Your task to perform on an android device: Search for a new mascara Image 0: 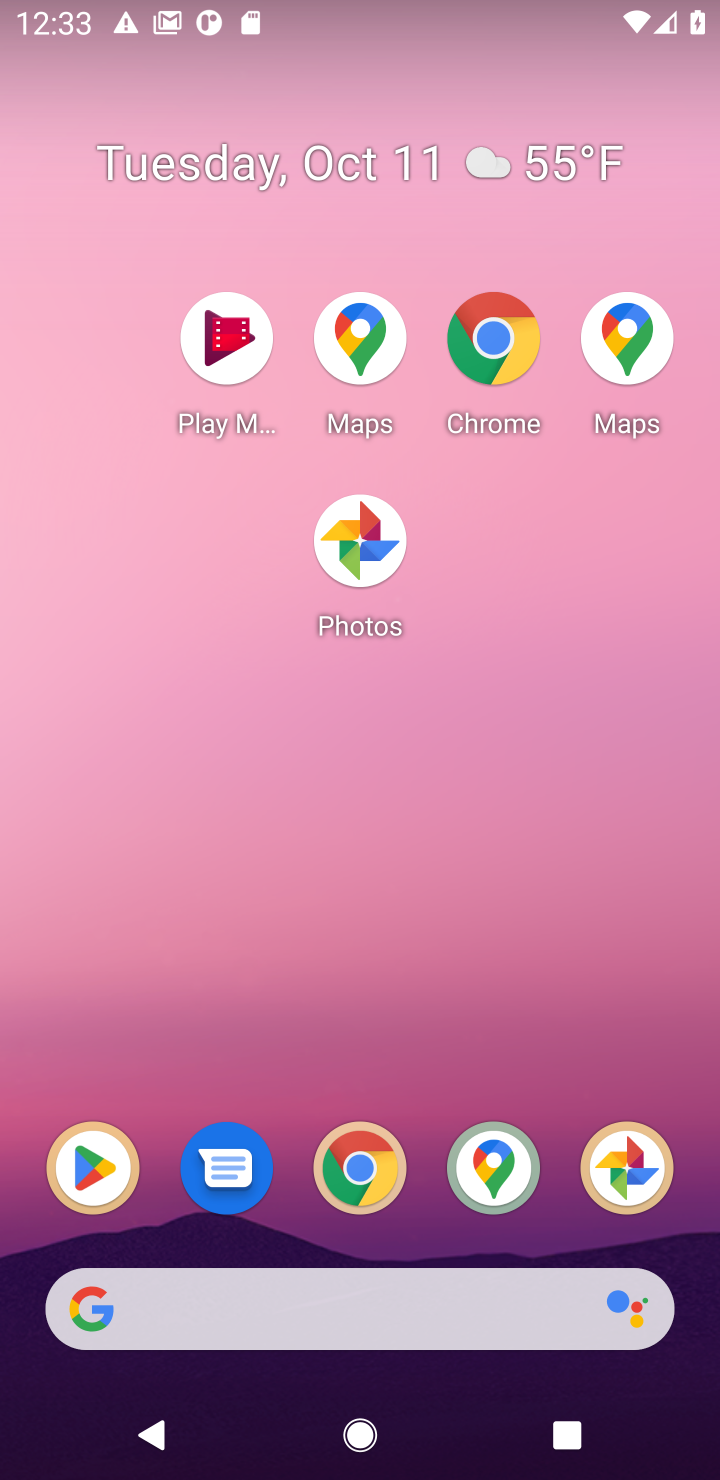
Step 0: drag from (502, 1108) to (466, 563)
Your task to perform on an android device: Search for a new mascara Image 1: 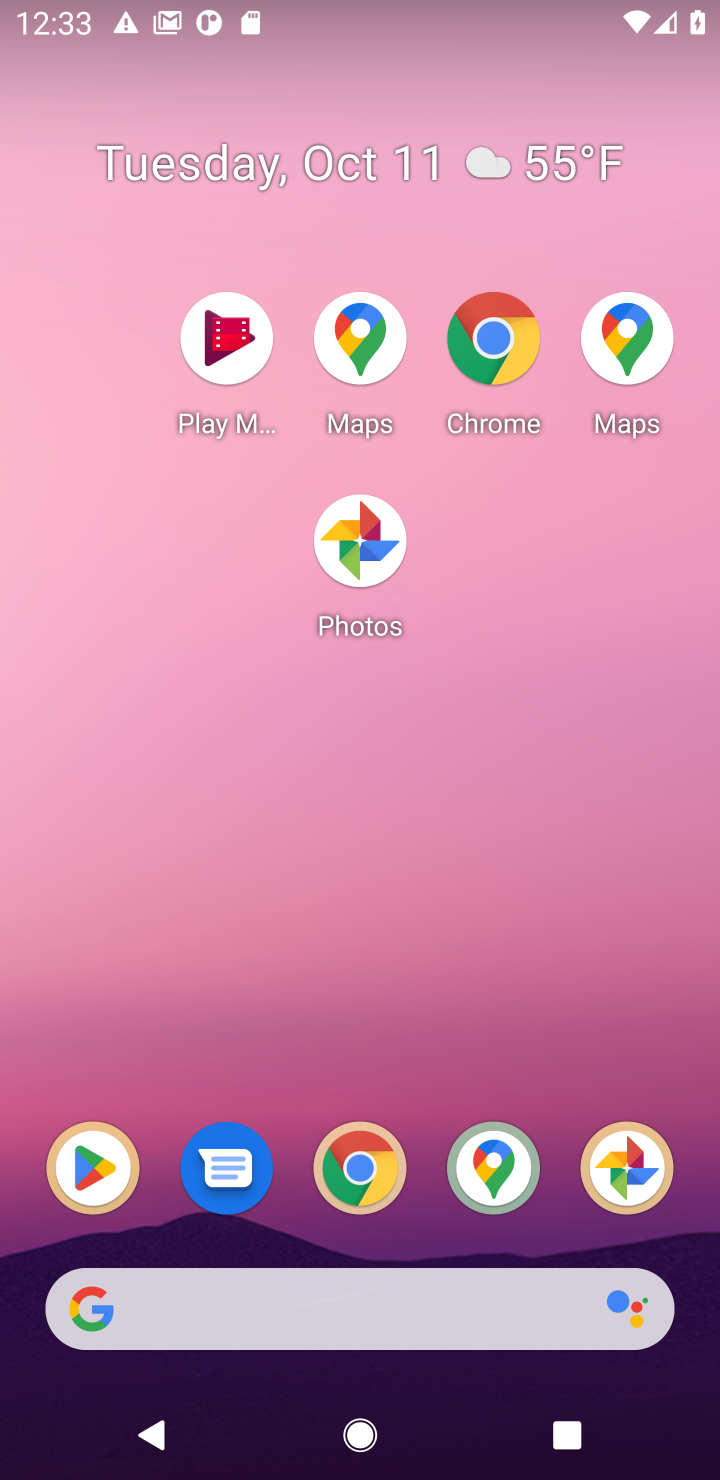
Step 1: drag from (415, 1119) to (438, 462)
Your task to perform on an android device: Search for a new mascara Image 2: 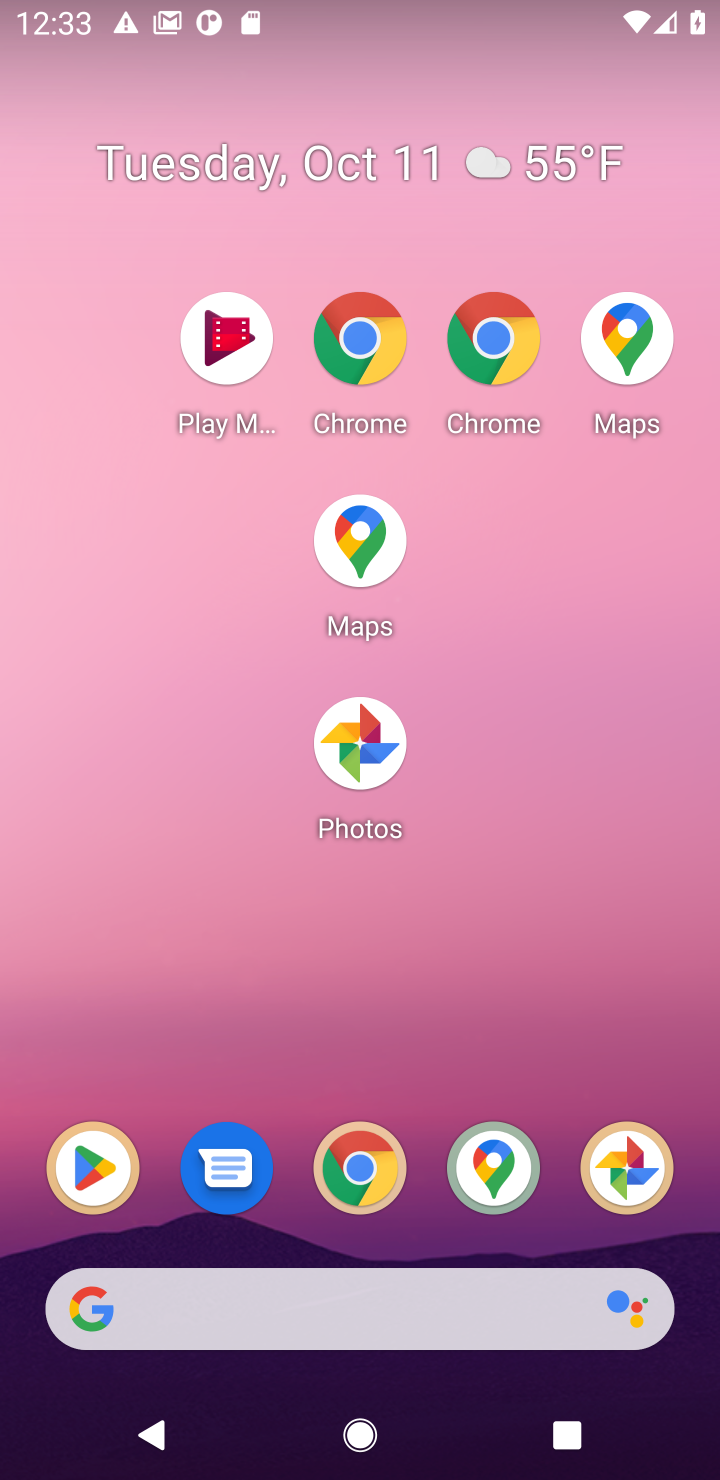
Step 2: drag from (436, 1040) to (418, 418)
Your task to perform on an android device: Search for a new mascara Image 3: 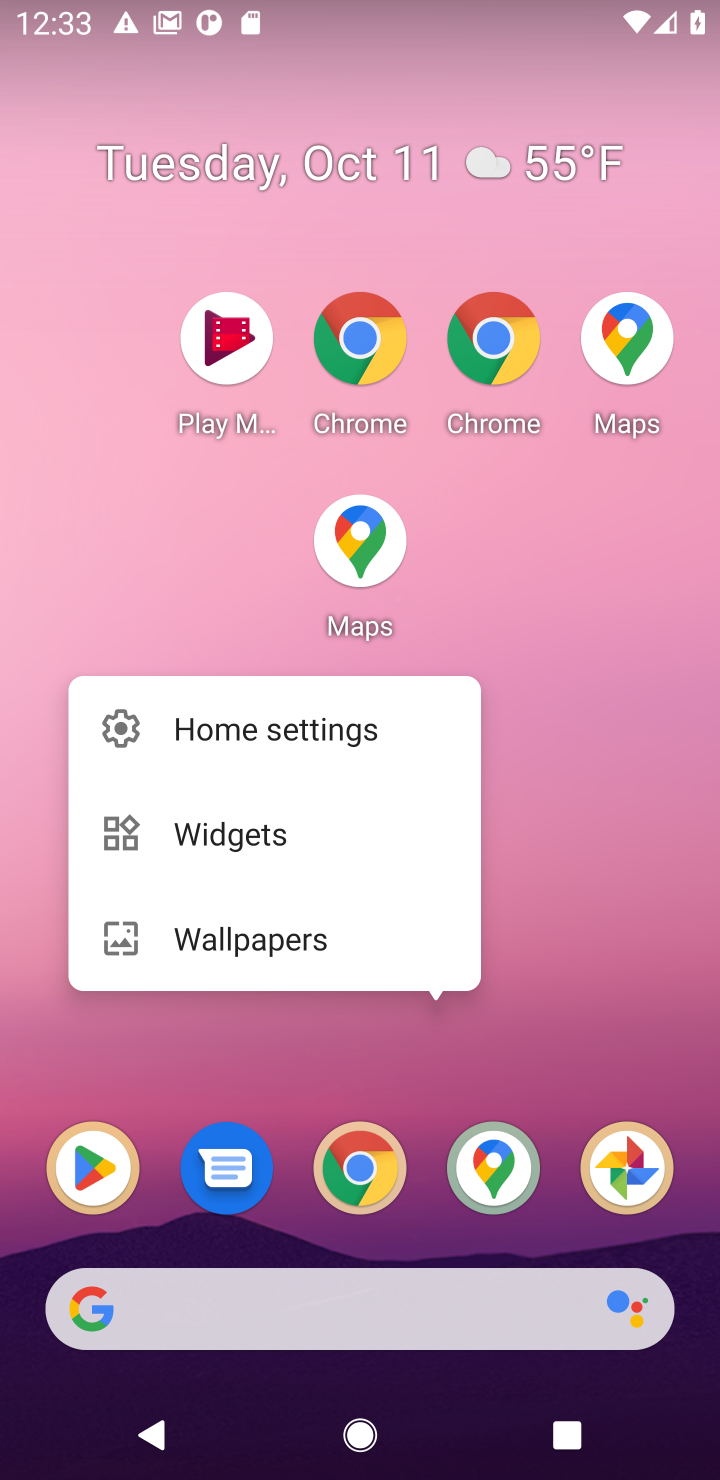
Step 3: click (517, 887)
Your task to perform on an android device: Search for a new mascara Image 4: 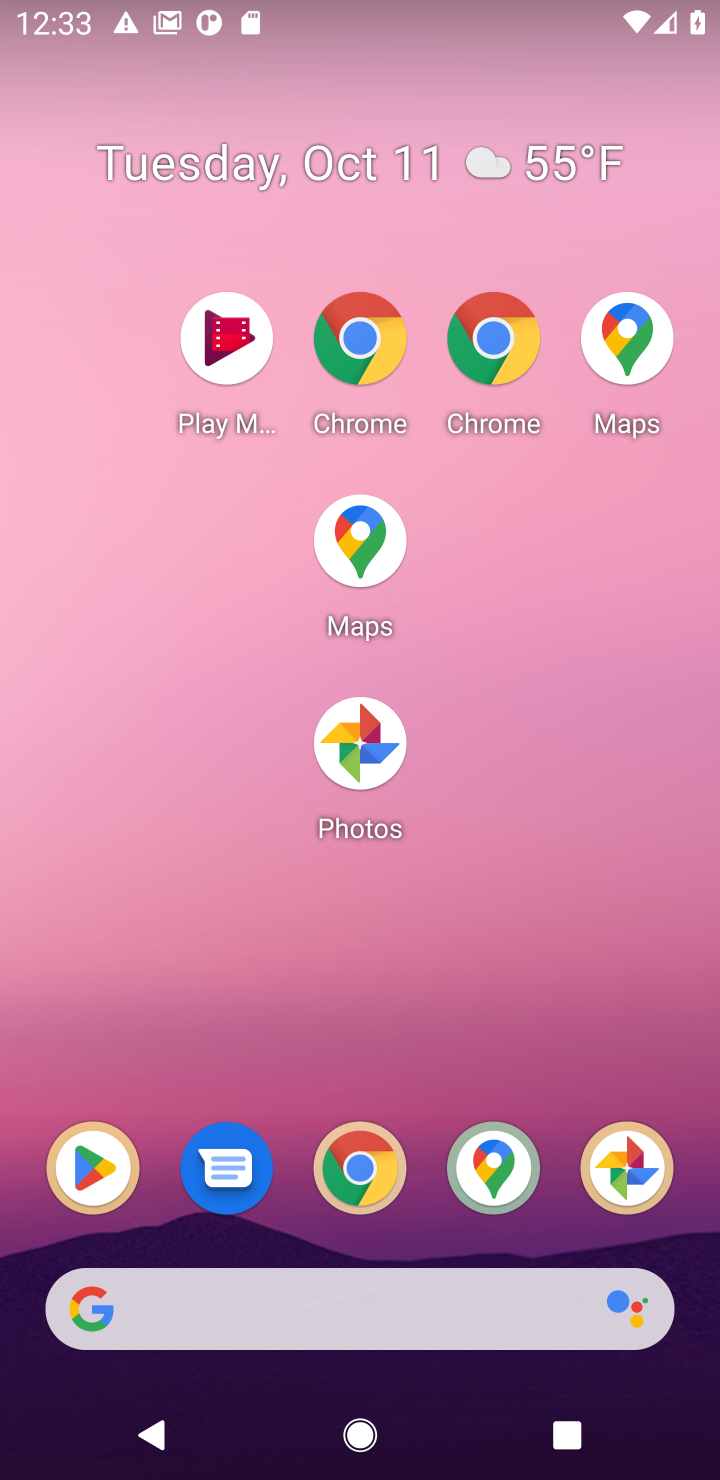
Step 4: drag from (447, 1106) to (235, 154)
Your task to perform on an android device: Search for a new mascara Image 5: 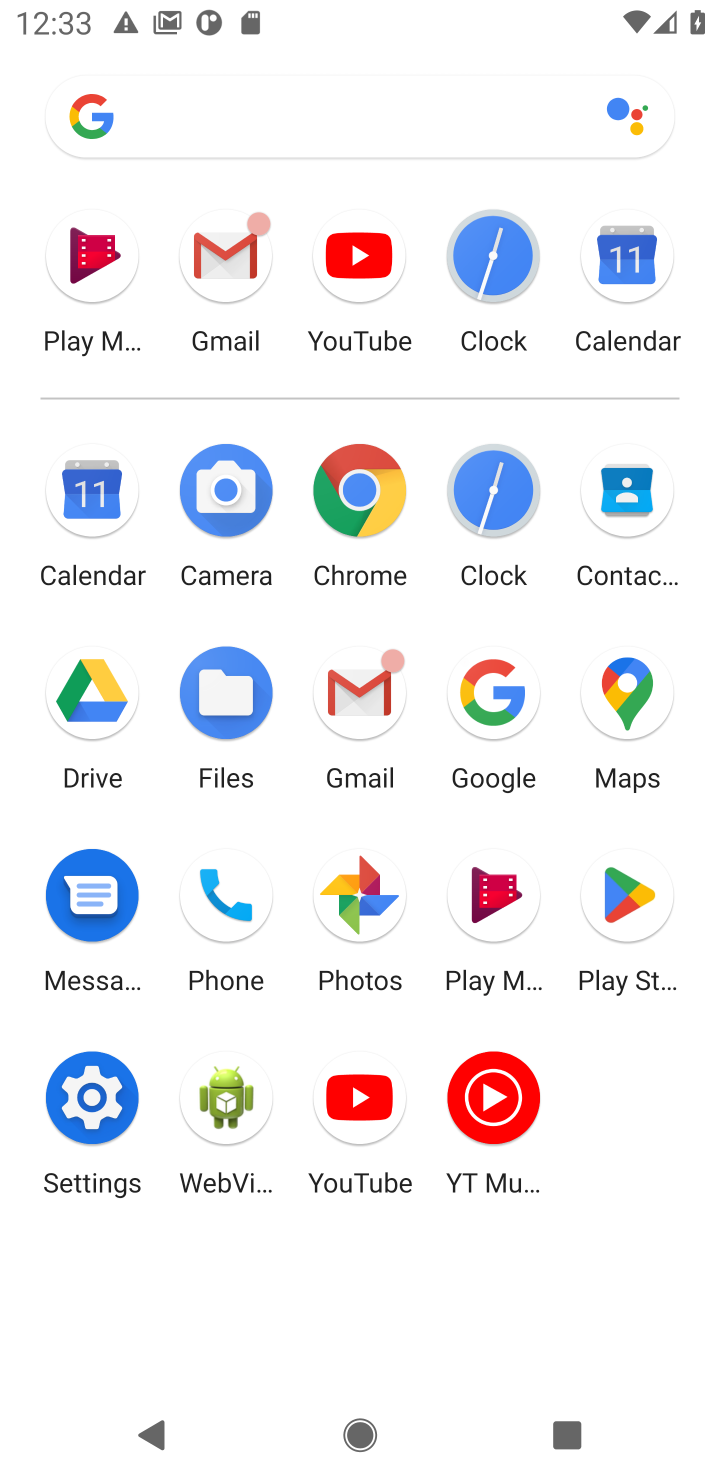
Step 5: click (491, 713)
Your task to perform on an android device: Search for a new mascara Image 6: 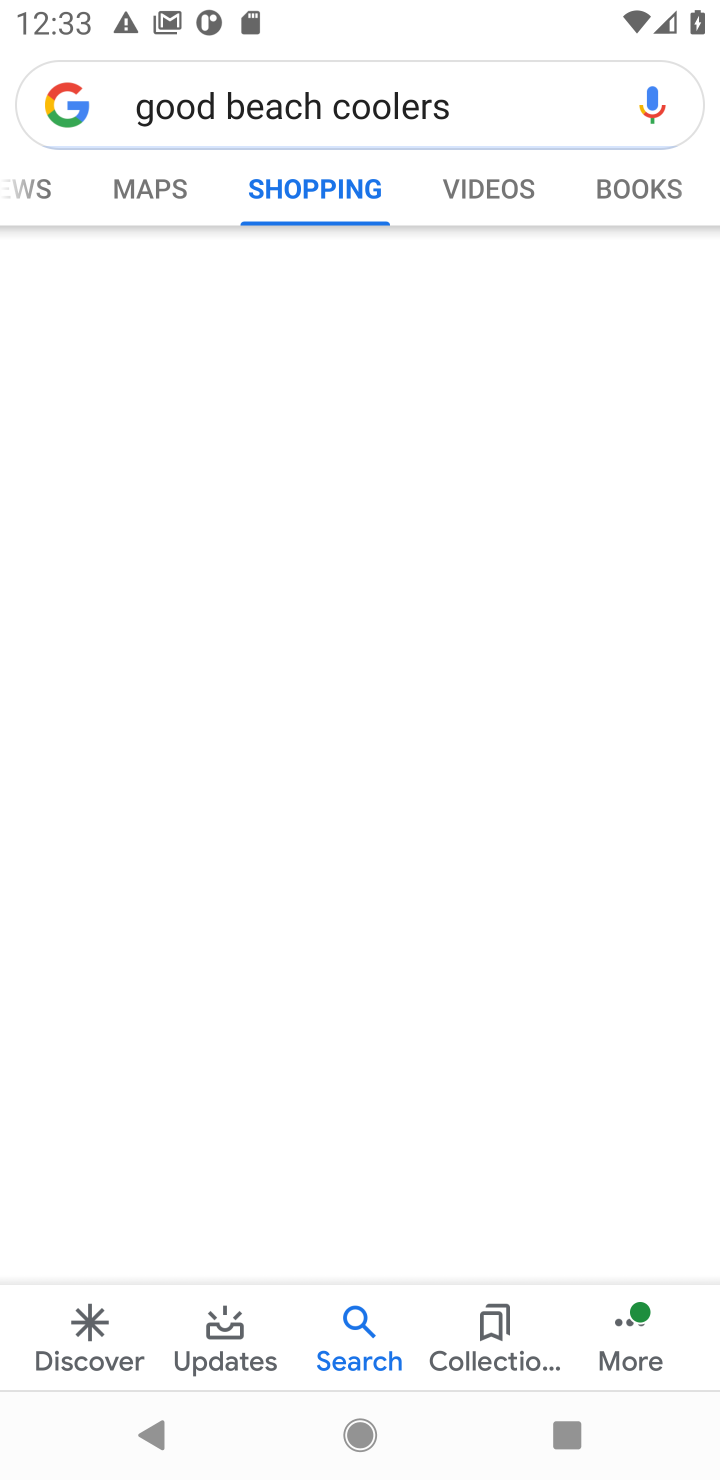
Step 6: click (457, 105)
Your task to perform on an android device: Search for a new mascara Image 7: 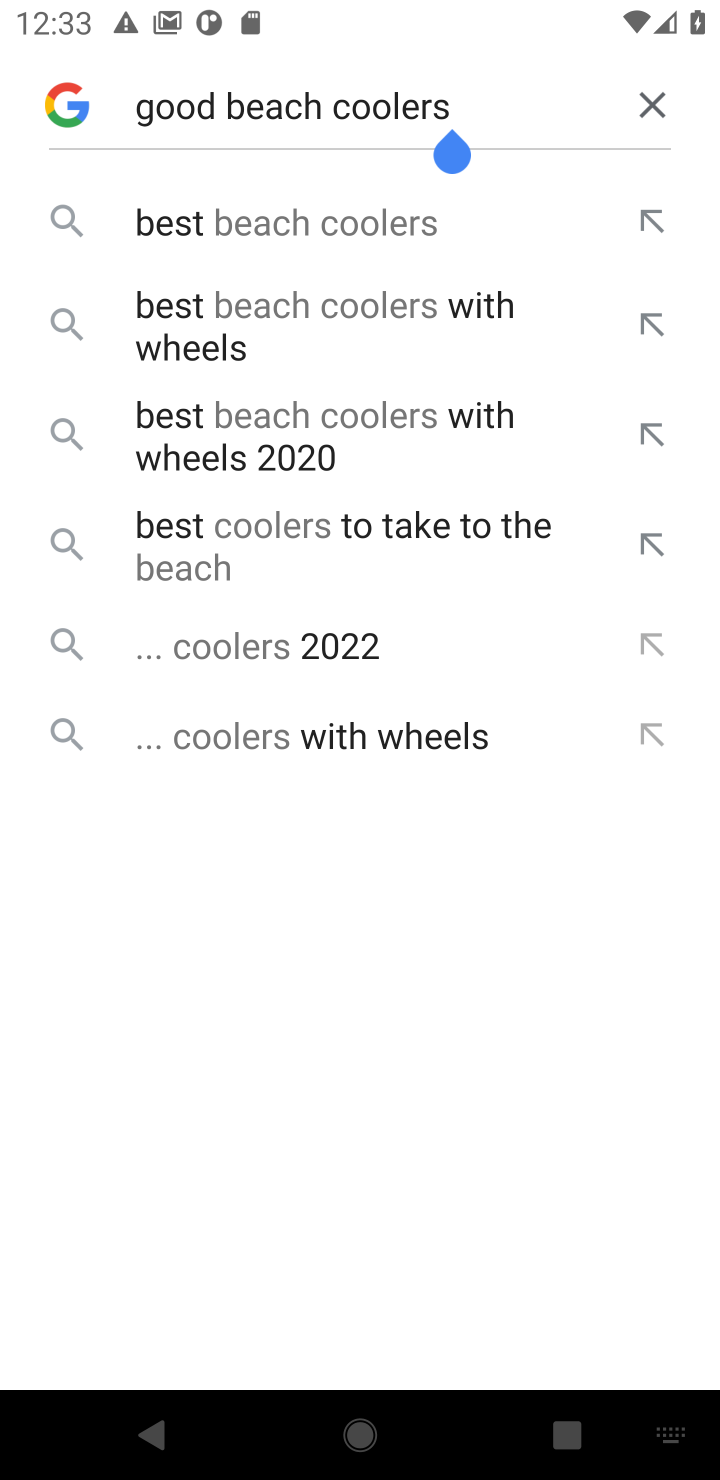
Step 7: click (646, 105)
Your task to perform on an android device: Search for a new mascara Image 8: 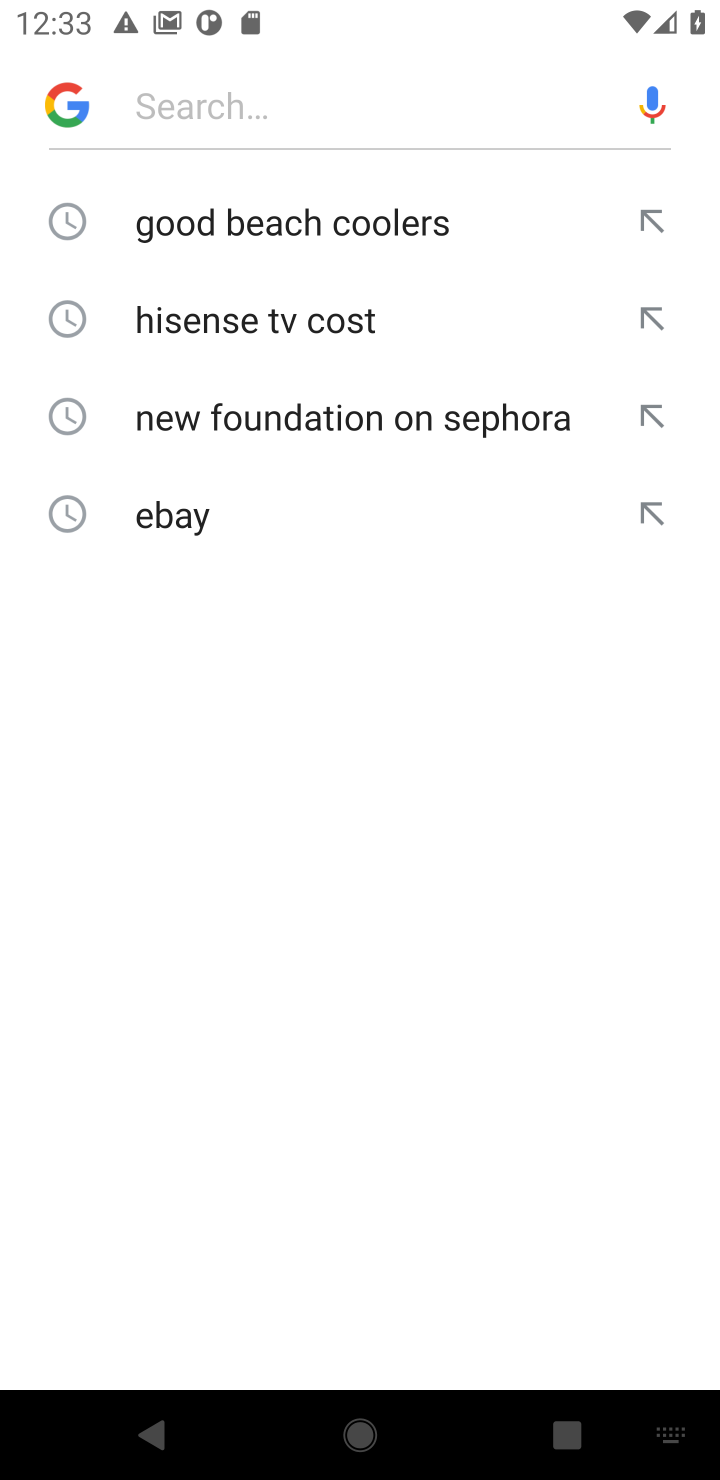
Step 8: type "new mascara"
Your task to perform on an android device: Search for a new mascara Image 9: 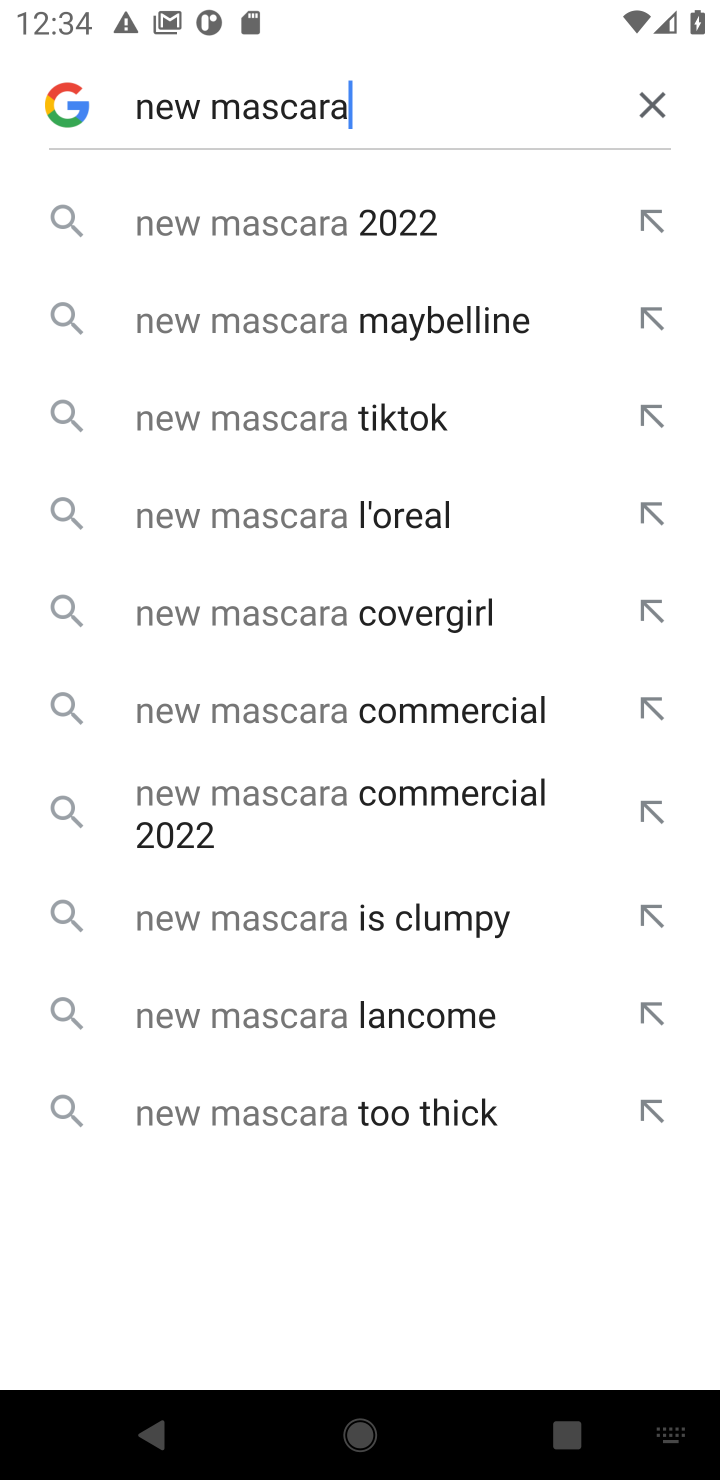
Step 9: click (490, 216)
Your task to perform on an android device: Search for a new mascara Image 10: 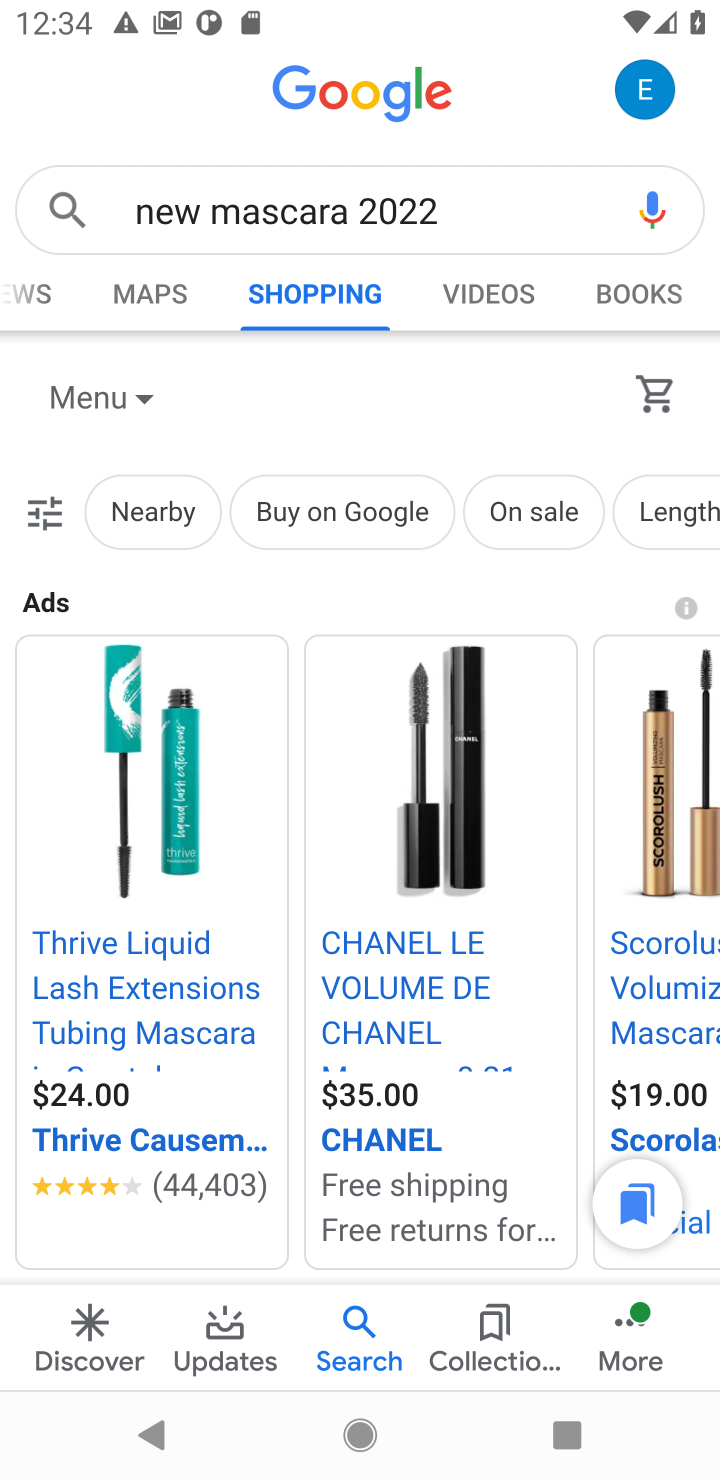
Step 10: task complete